Your task to perform on an android device: empty trash in the gmail app Image 0: 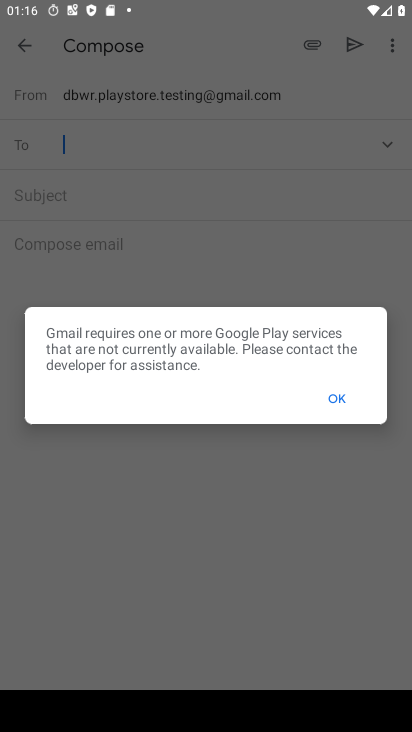
Step 0: press home button
Your task to perform on an android device: empty trash in the gmail app Image 1: 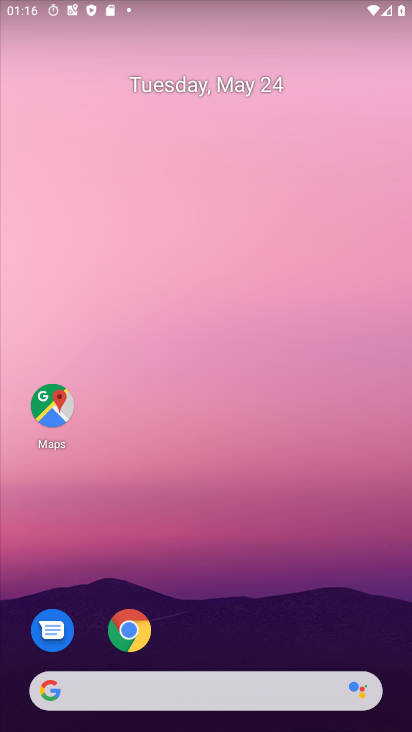
Step 1: drag from (272, 661) to (269, 10)
Your task to perform on an android device: empty trash in the gmail app Image 2: 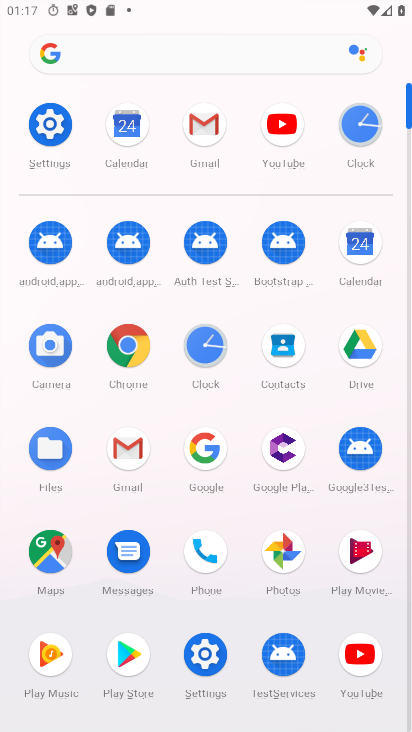
Step 2: click (199, 123)
Your task to perform on an android device: empty trash in the gmail app Image 3: 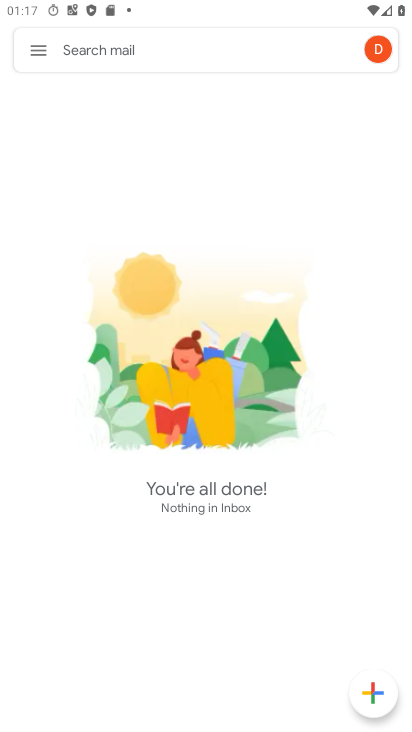
Step 3: click (34, 52)
Your task to perform on an android device: empty trash in the gmail app Image 4: 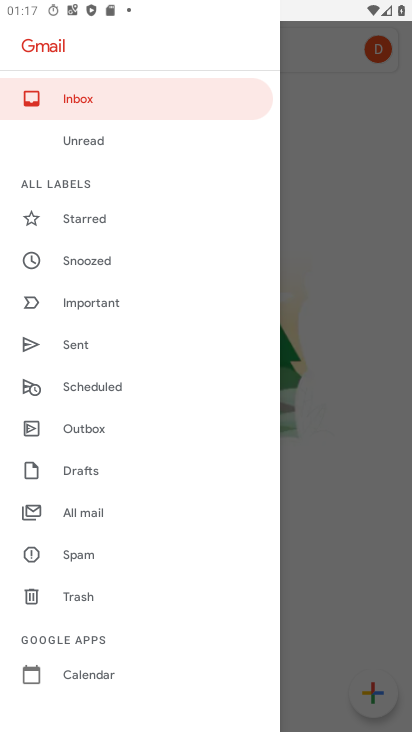
Step 4: click (71, 602)
Your task to perform on an android device: empty trash in the gmail app Image 5: 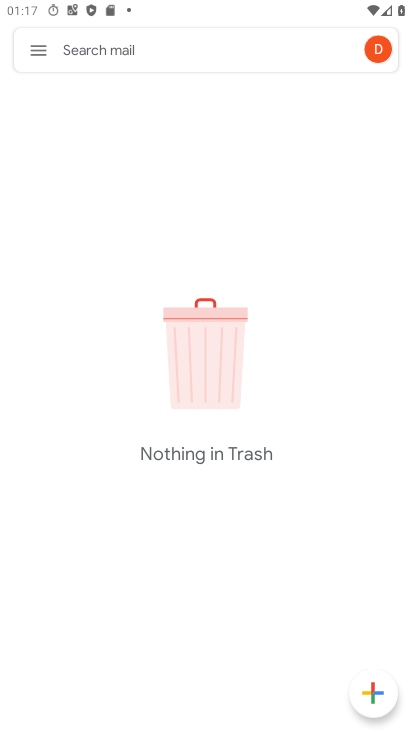
Step 5: task complete